Your task to perform on an android device: Set an alarm for 1pm Image 0: 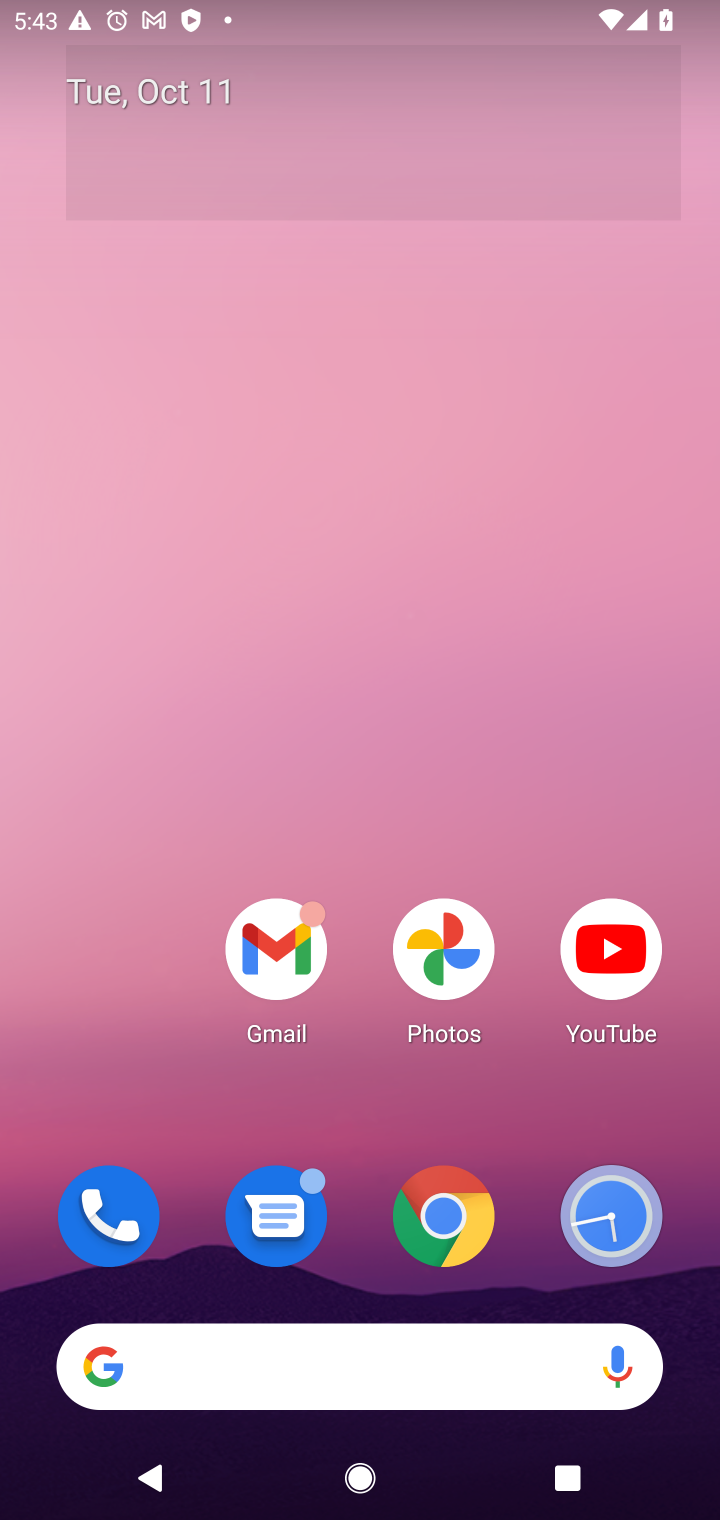
Step 0: drag from (358, 1268) to (195, 274)
Your task to perform on an android device: Set an alarm for 1pm Image 1: 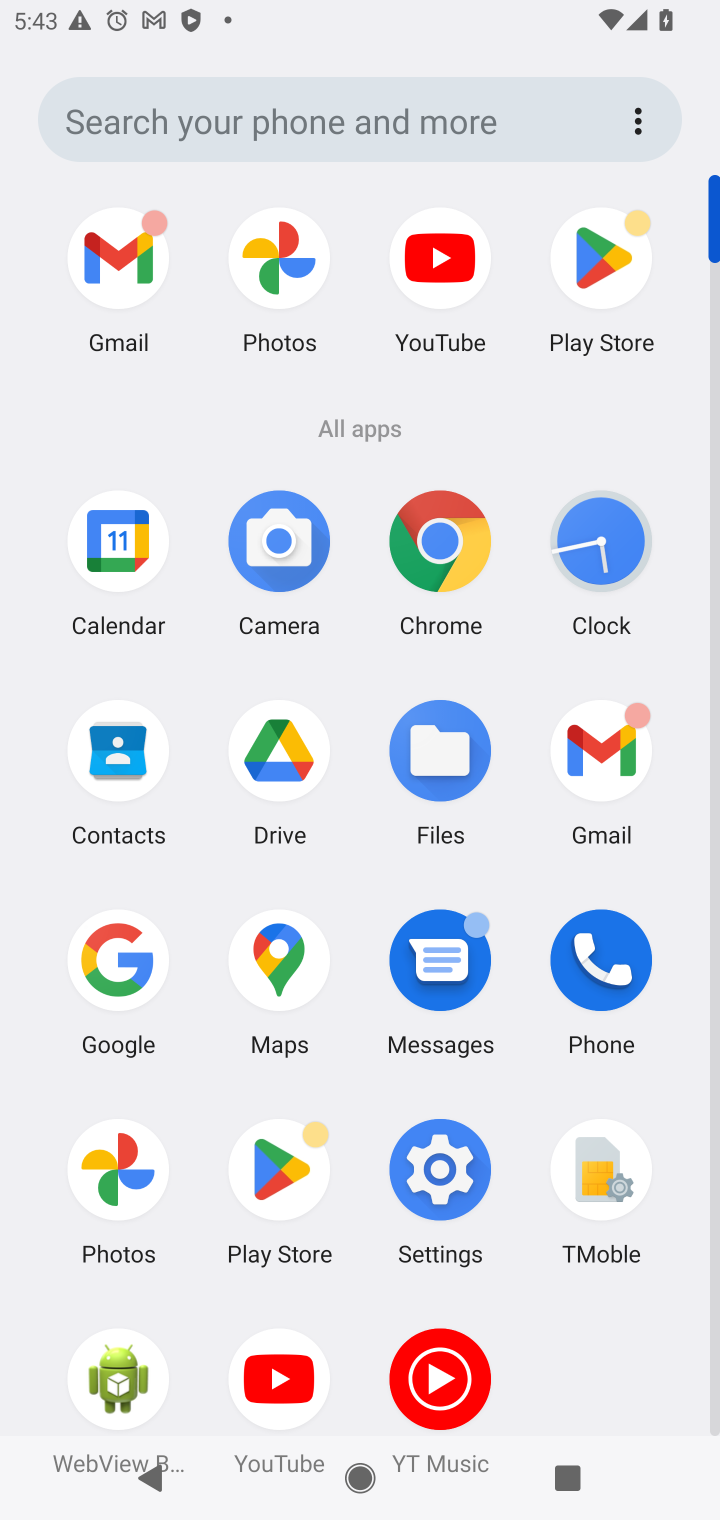
Step 1: click (635, 577)
Your task to perform on an android device: Set an alarm for 1pm Image 2: 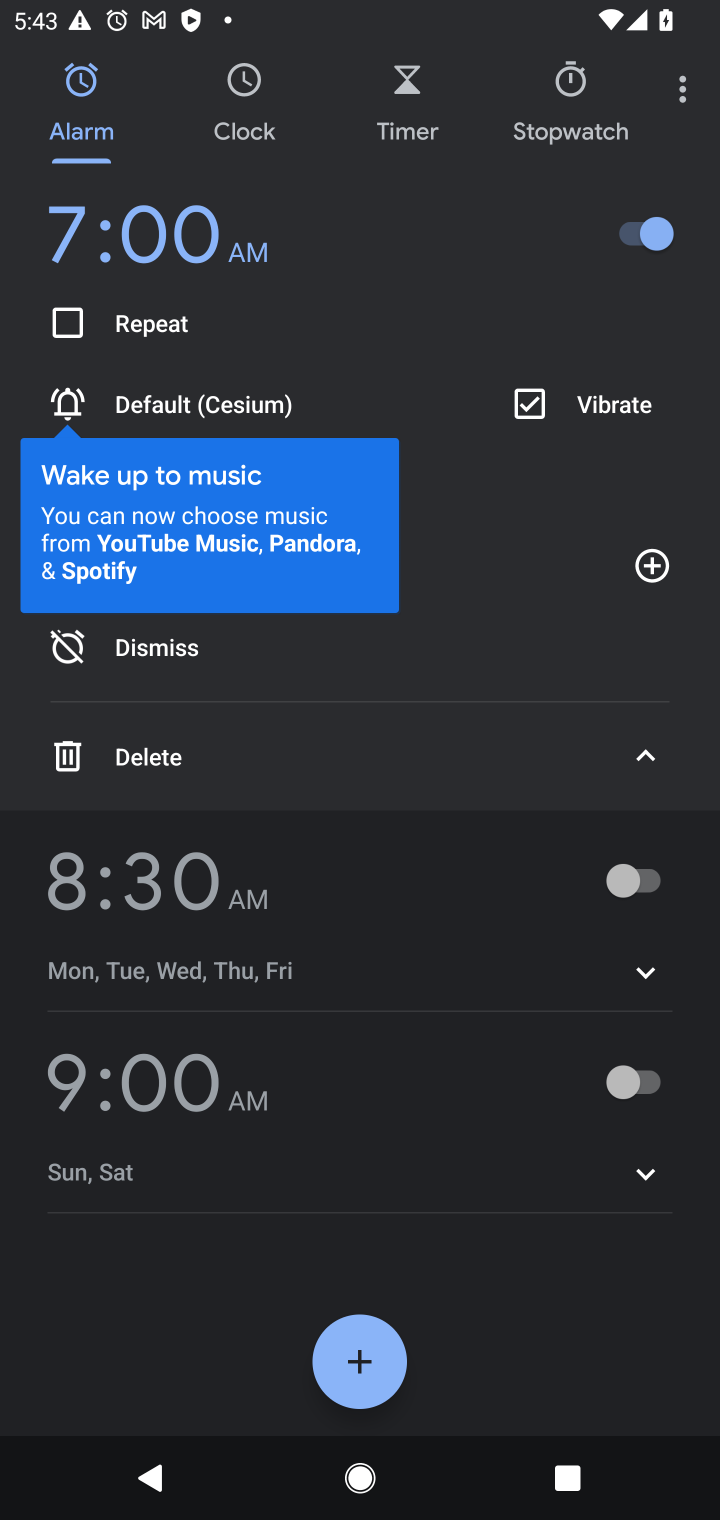
Step 2: click (359, 1362)
Your task to perform on an android device: Set an alarm for 1pm Image 3: 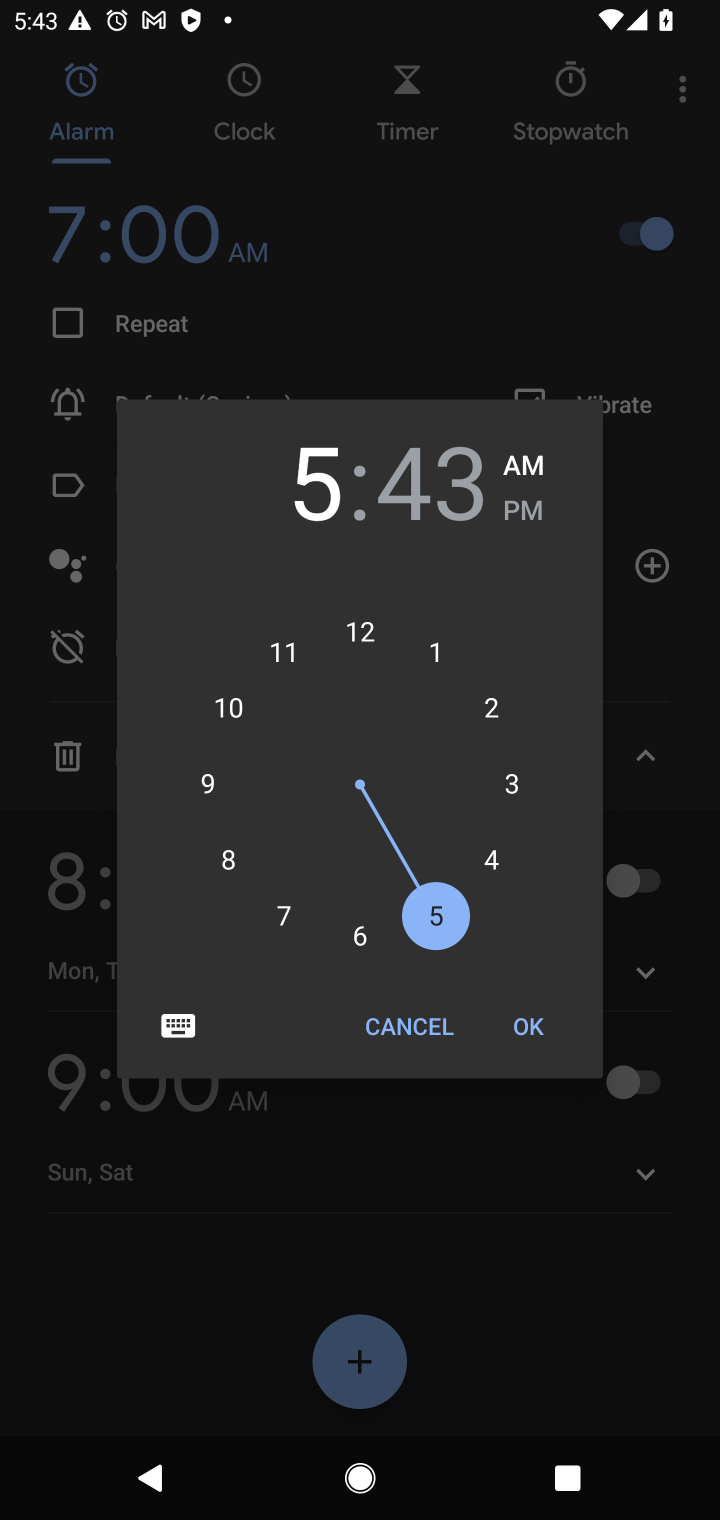
Step 3: click (426, 665)
Your task to perform on an android device: Set an alarm for 1pm Image 4: 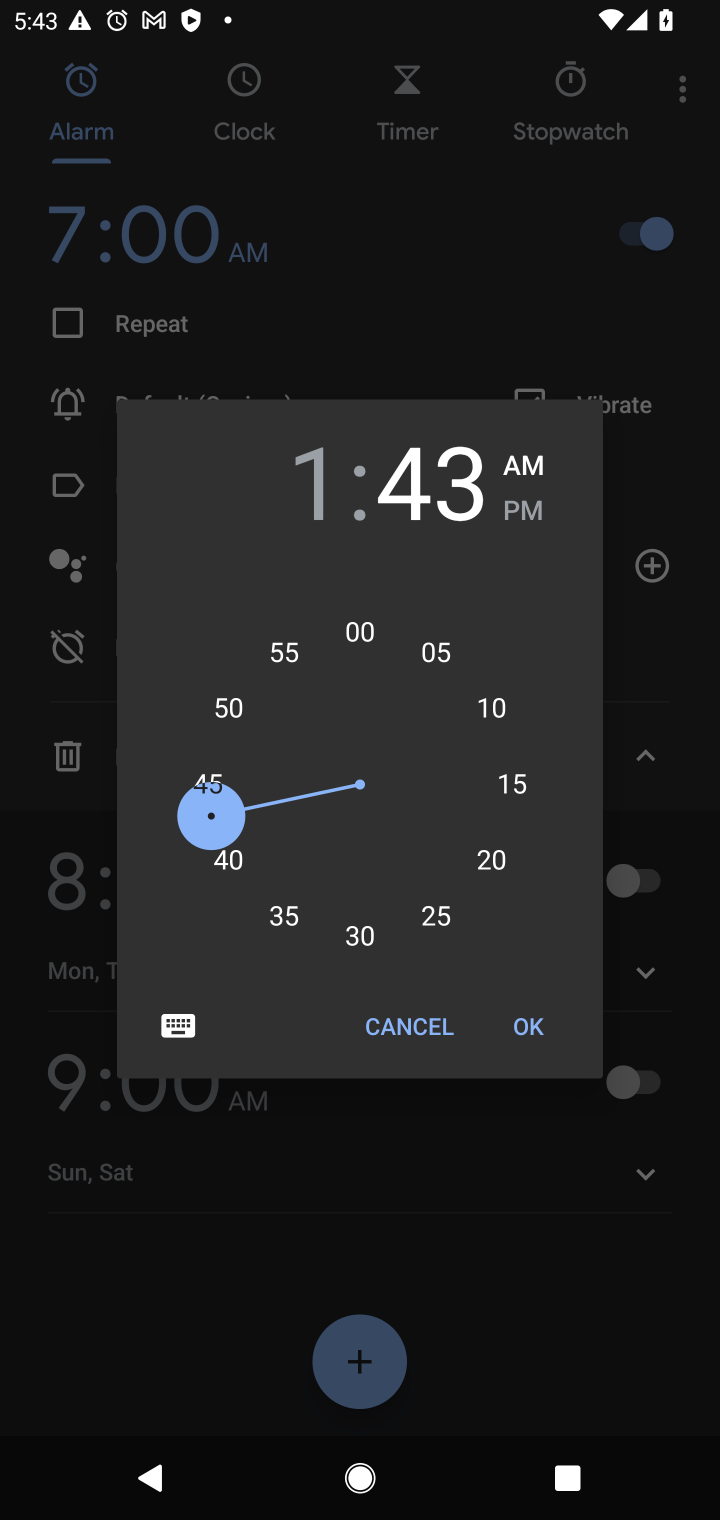
Step 4: click (370, 629)
Your task to perform on an android device: Set an alarm for 1pm Image 5: 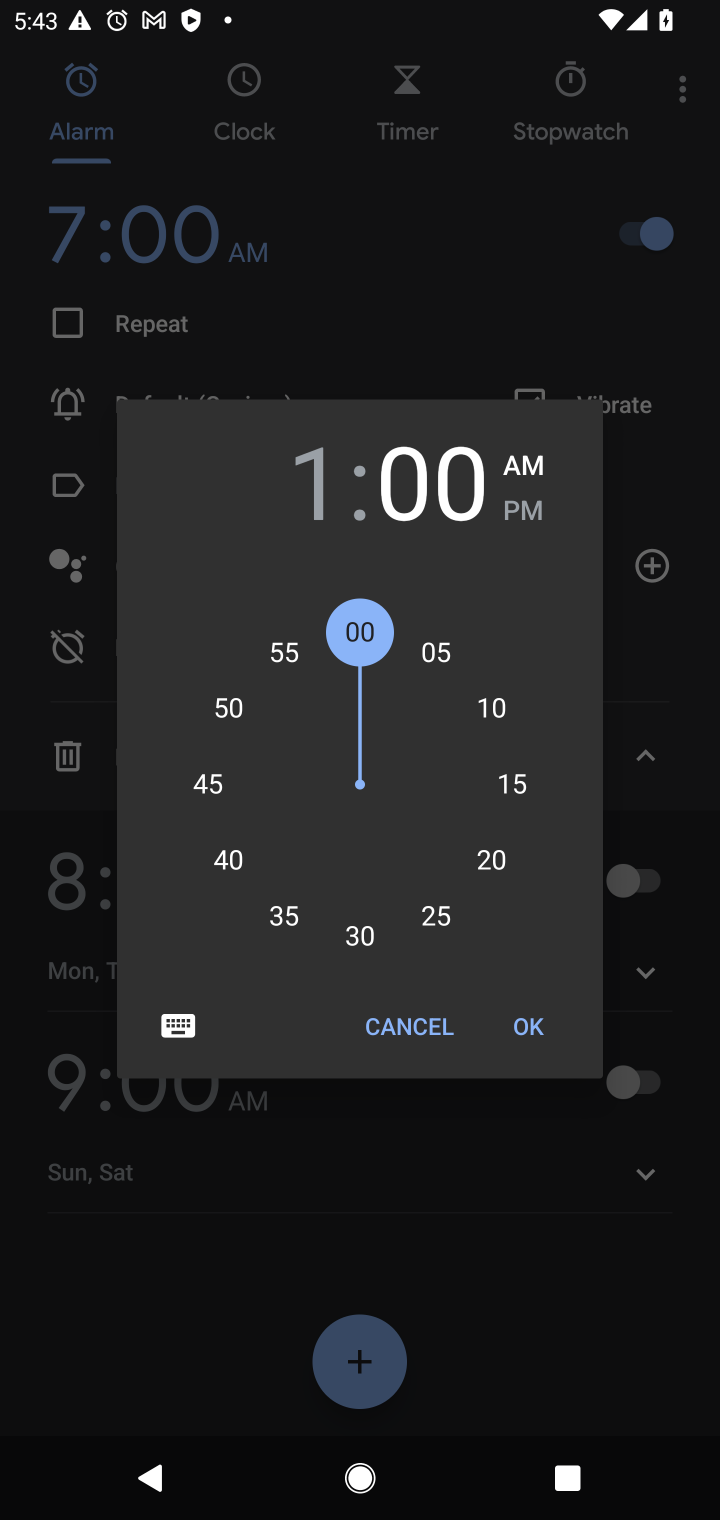
Step 5: click (529, 523)
Your task to perform on an android device: Set an alarm for 1pm Image 6: 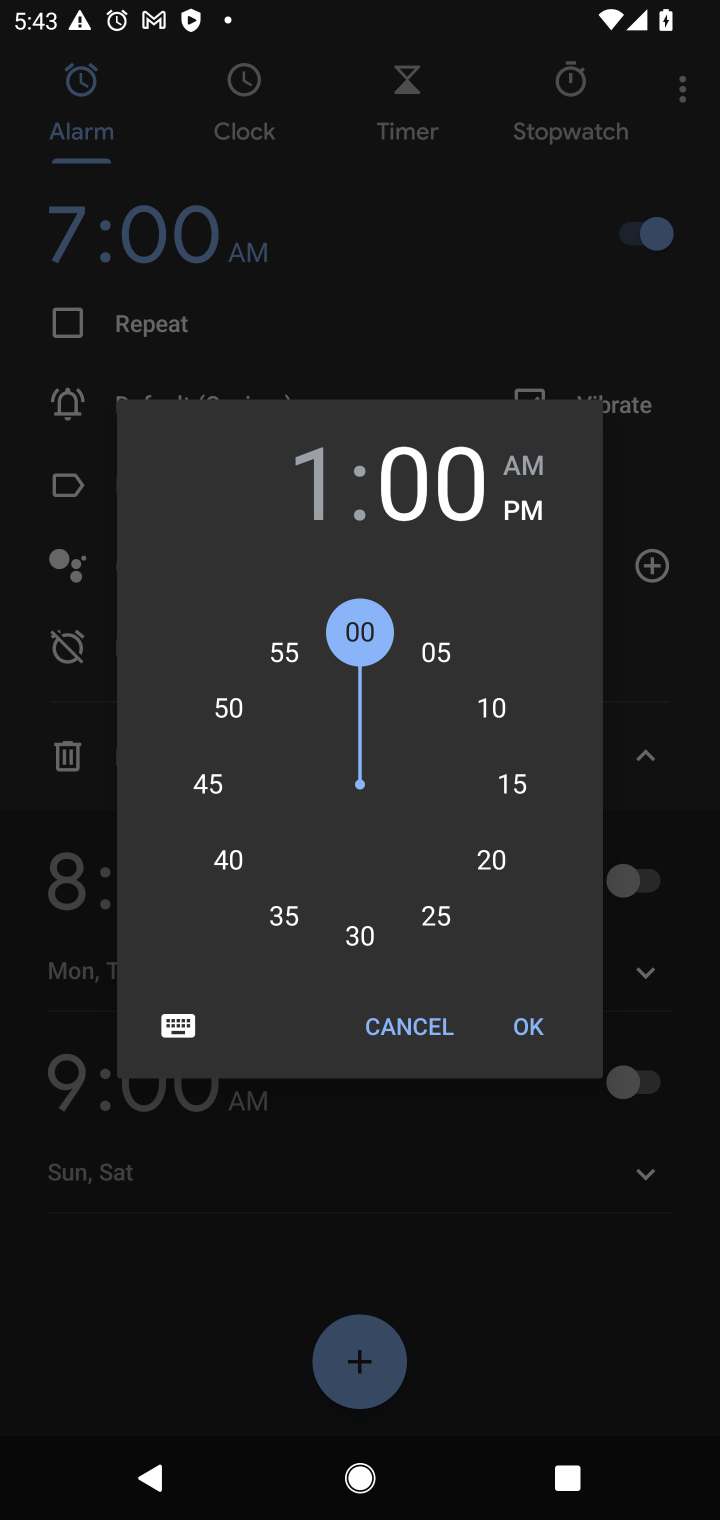
Step 6: task complete